Your task to perform on an android device: Open ESPN.com Image 0: 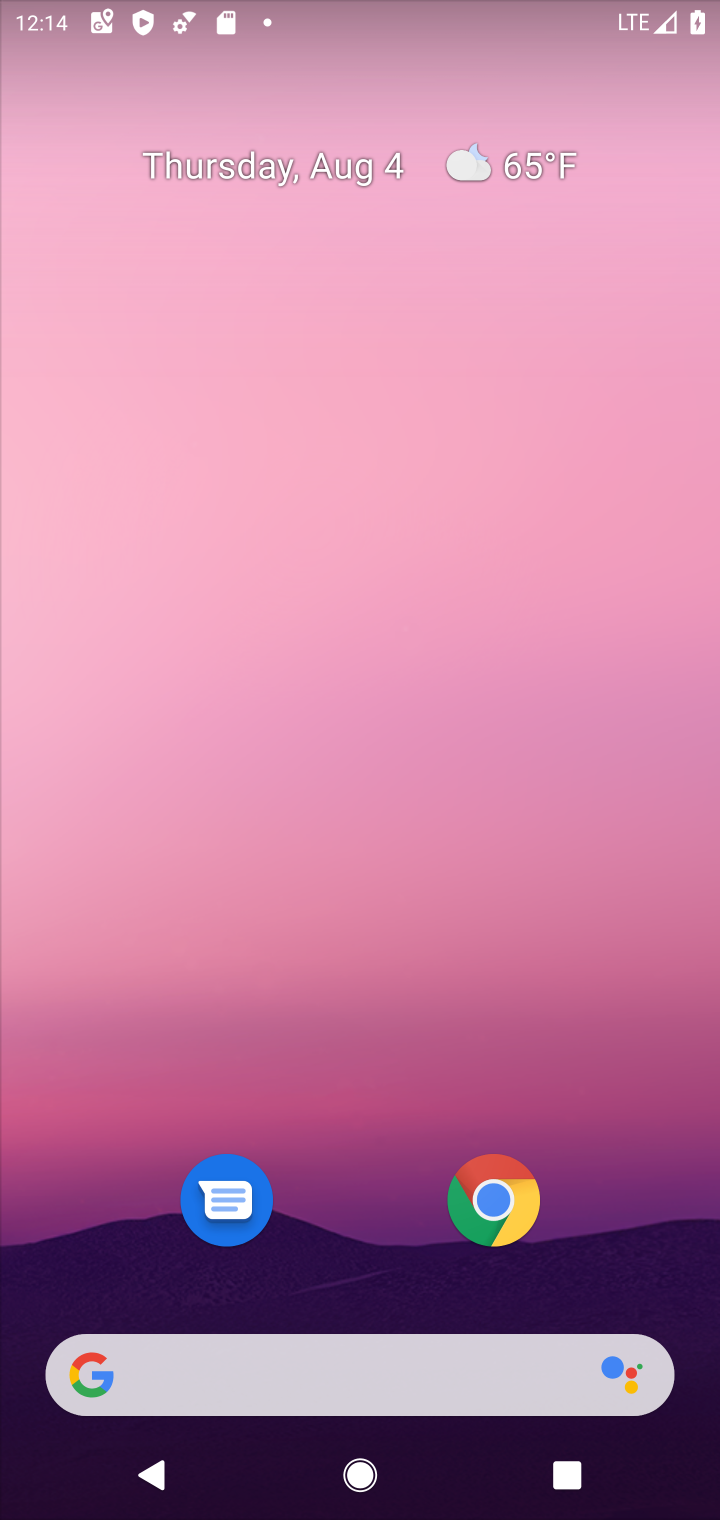
Step 0: press home button
Your task to perform on an android device: Open ESPN.com Image 1: 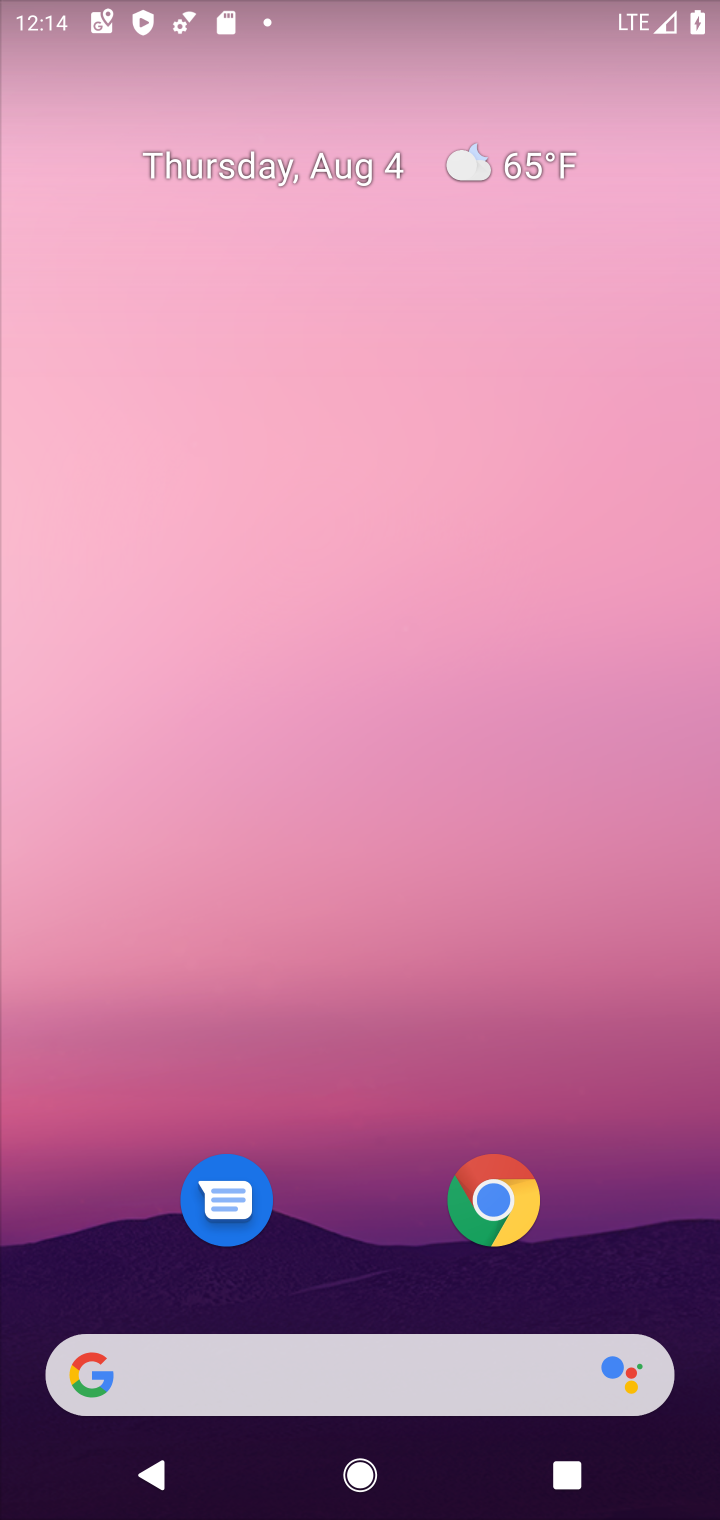
Step 1: click (499, 1215)
Your task to perform on an android device: Open ESPN.com Image 2: 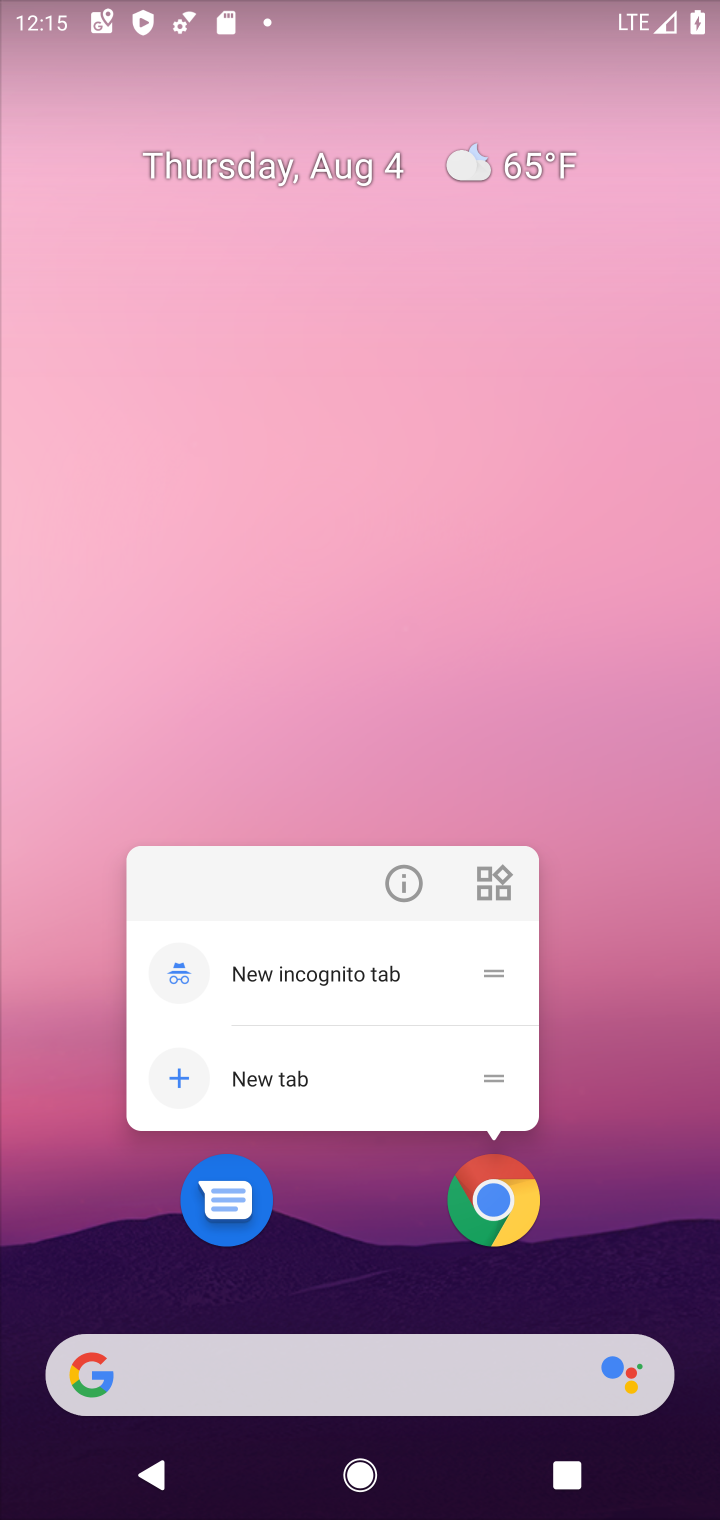
Step 2: click (496, 1208)
Your task to perform on an android device: Open ESPN.com Image 3: 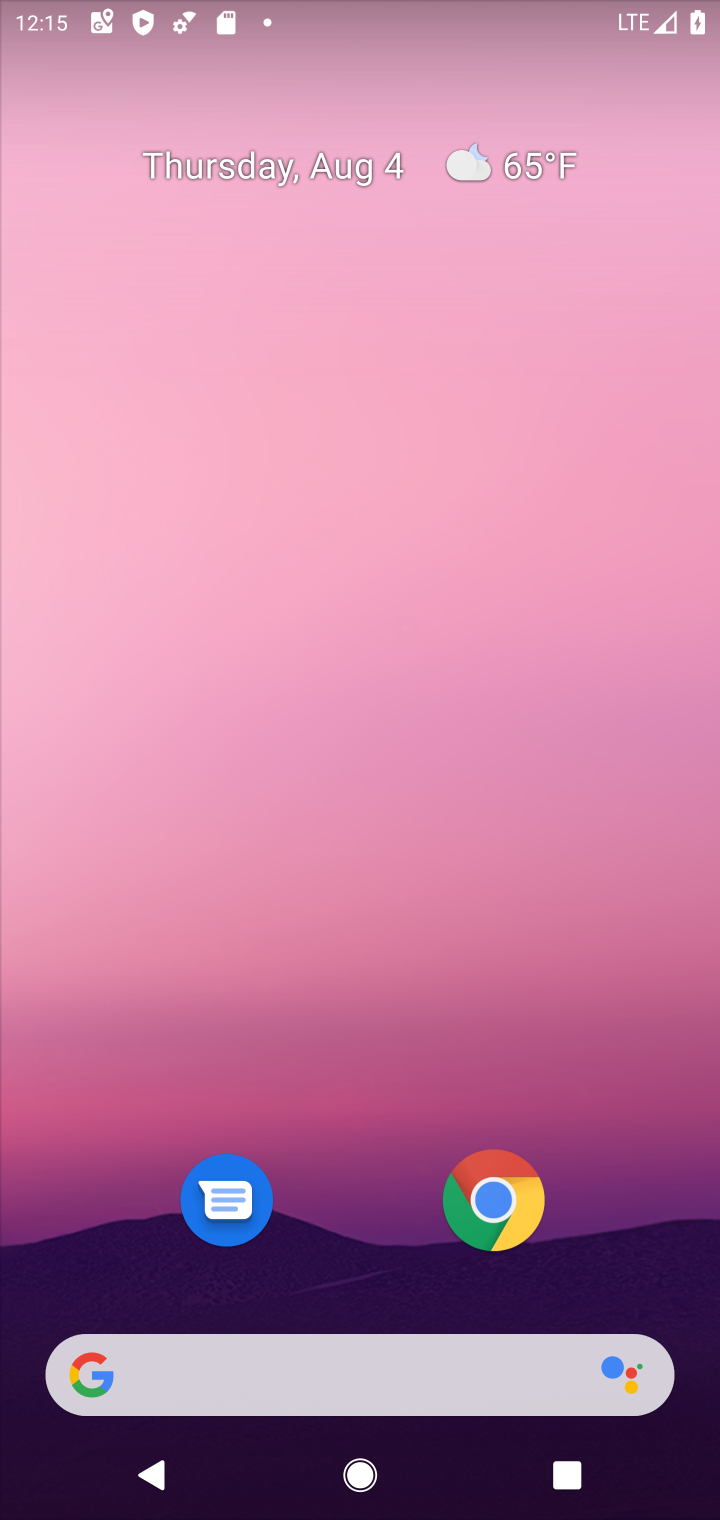
Step 3: drag from (583, 1221) to (553, 60)
Your task to perform on an android device: Open ESPN.com Image 4: 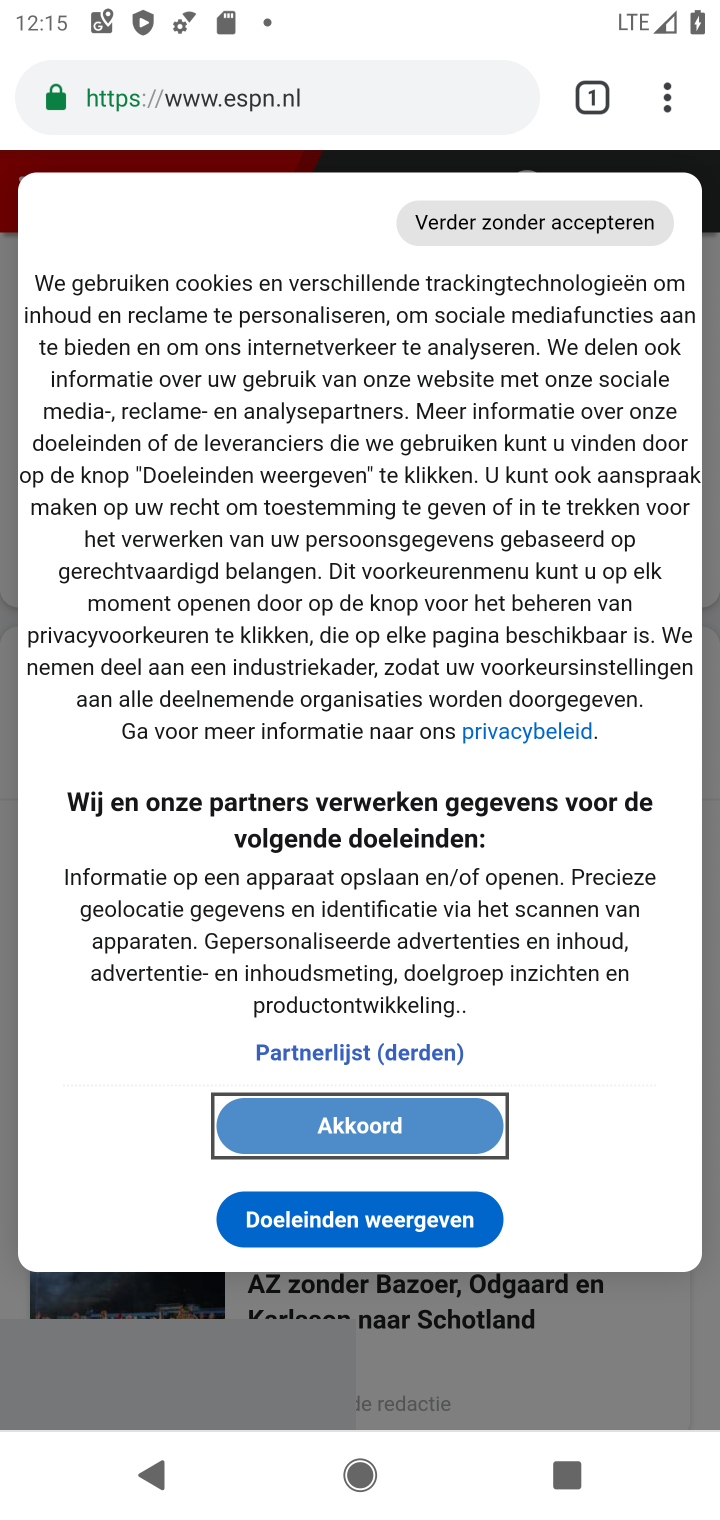
Step 4: click (353, 114)
Your task to perform on an android device: Open ESPN.com Image 5: 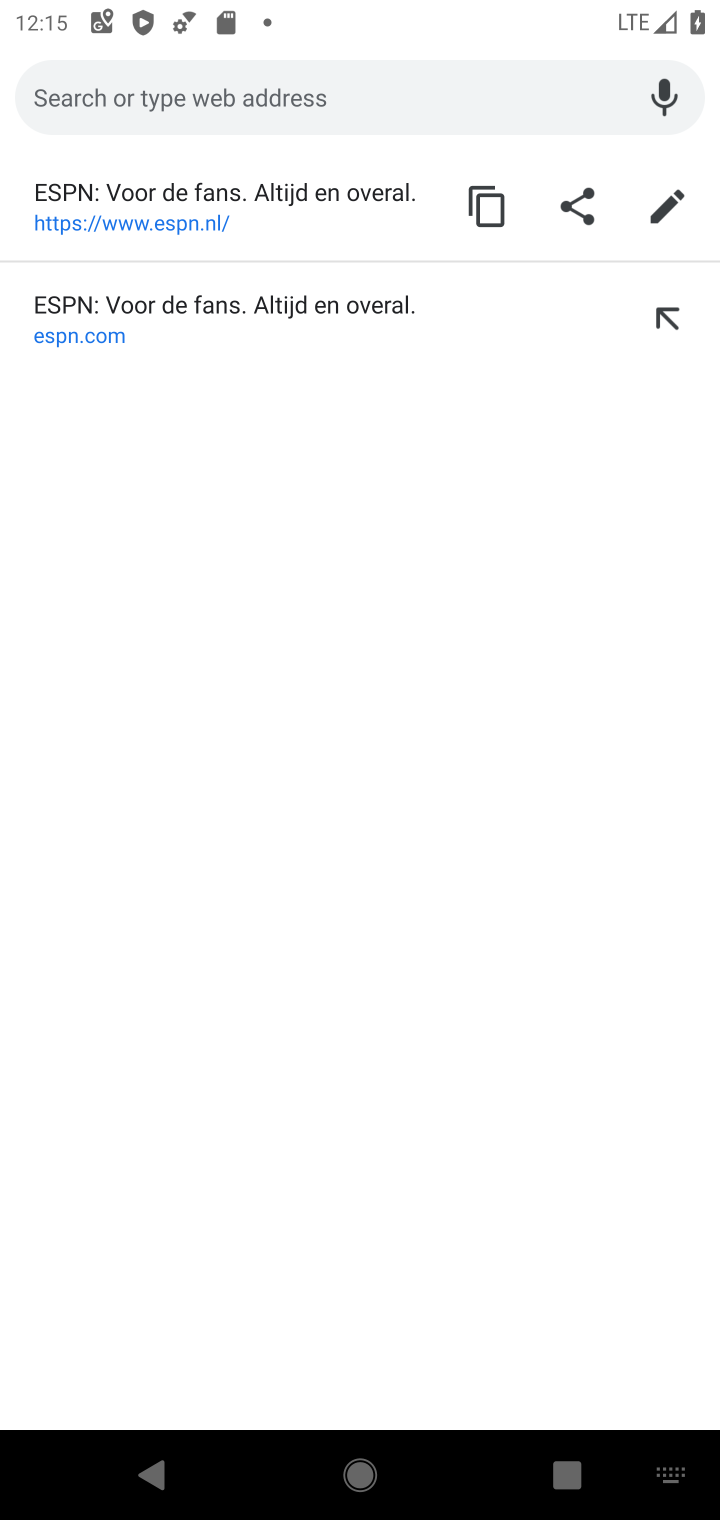
Step 5: click (104, 208)
Your task to perform on an android device: Open ESPN.com Image 6: 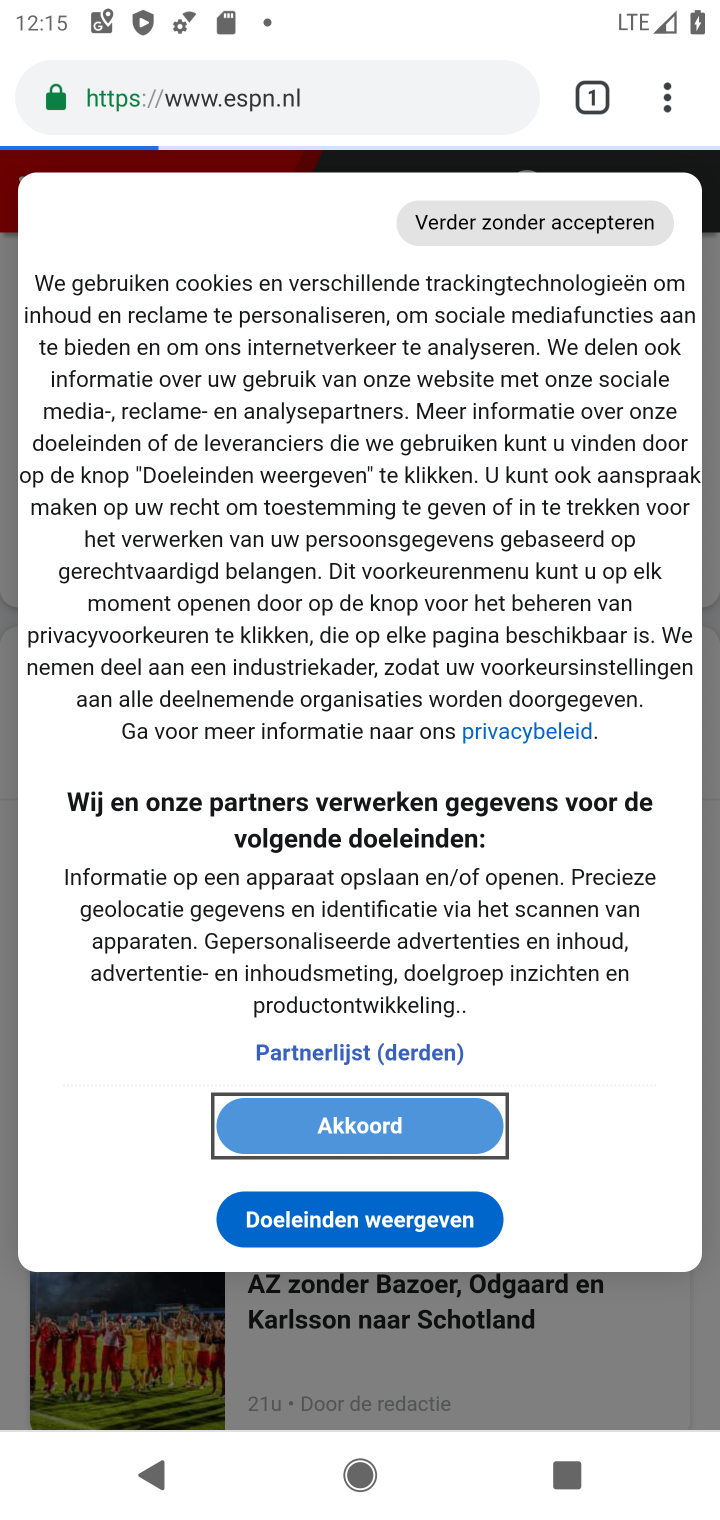
Step 6: click (385, 1116)
Your task to perform on an android device: Open ESPN.com Image 7: 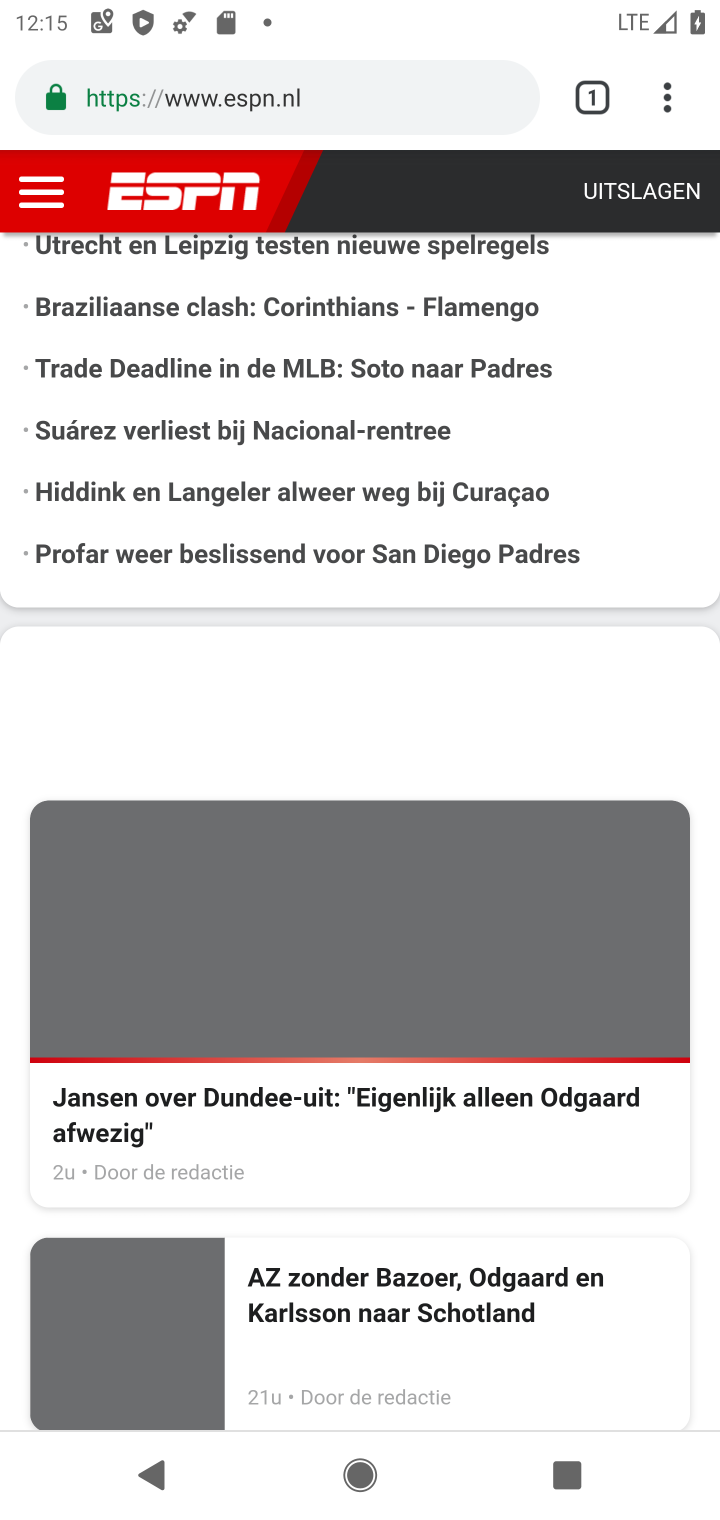
Step 7: task complete